Your task to perform on an android device: set default search engine in the chrome app Image 0: 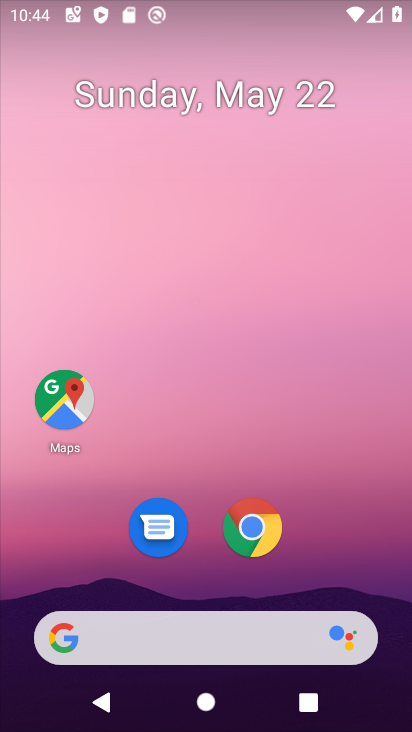
Step 0: click (274, 530)
Your task to perform on an android device: set default search engine in the chrome app Image 1: 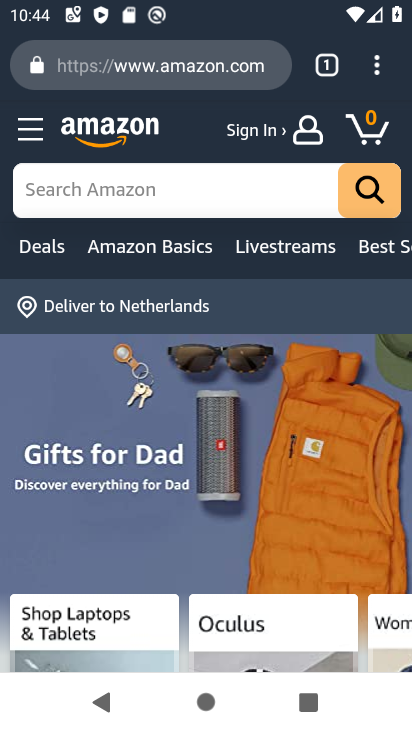
Step 1: click (392, 53)
Your task to perform on an android device: set default search engine in the chrome app Image 2: 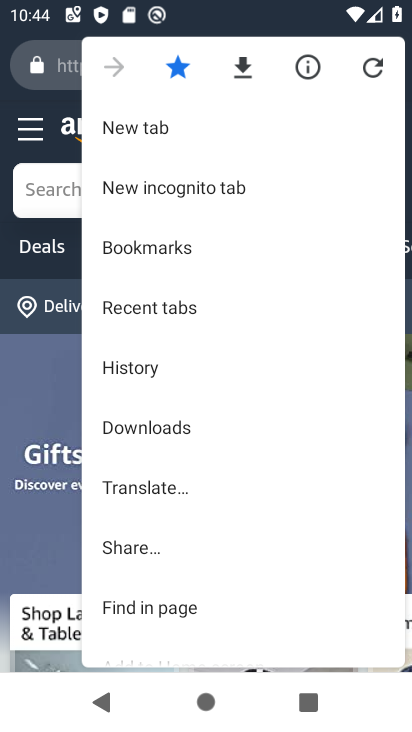
Step 2: drag from (172, 576) to (213, 437)
Your task to perform on an android device: set default search engine in the chrome app Image 3: 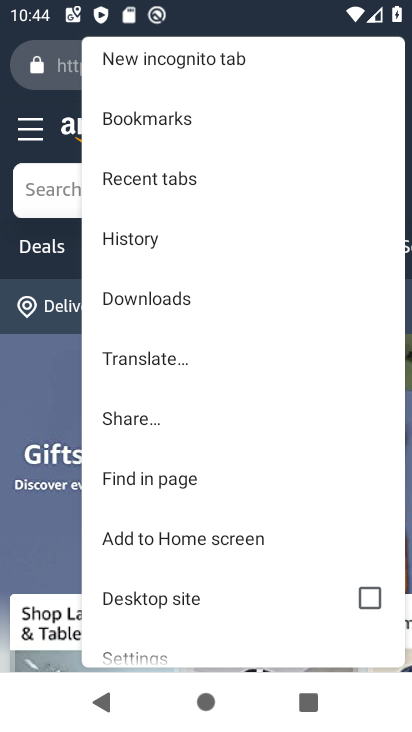
Step 3: click (148, 652)
Your task to perform on an android device: set default search engine in the chrome app Image 4: 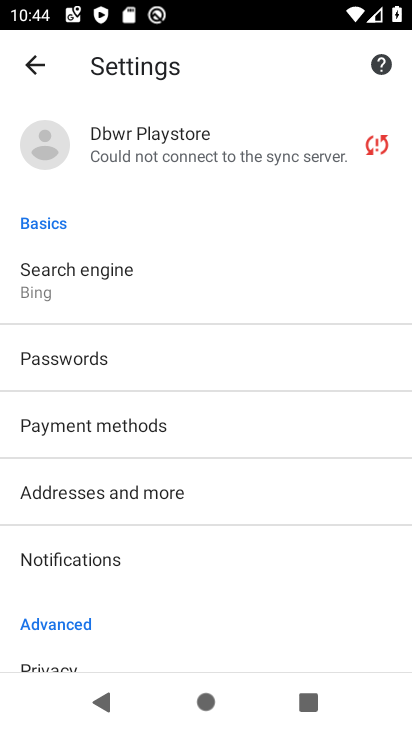
Step 4: drag from (184, 601) to (242, 373)
Your task to perform on an android device: set default search engine in the chrome app Image 5: 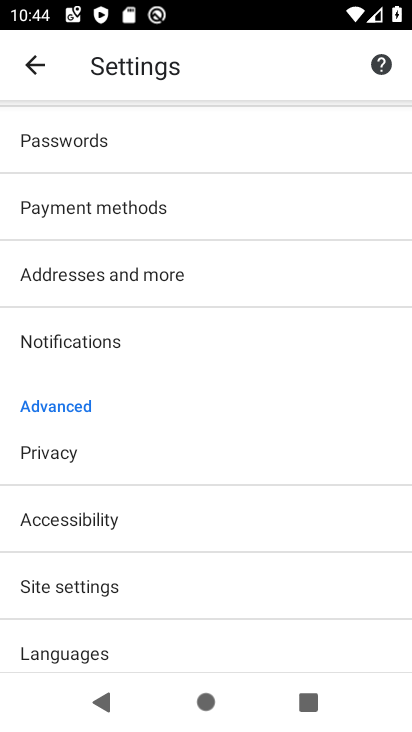
Step 5: drag from (163, 144) to (119, 586)
Your task to perform on an android device: set default search engine in the chrome app Image 6: 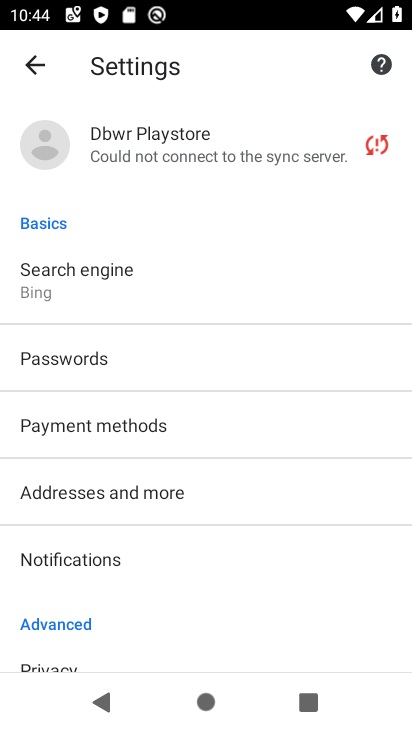
Step 6: click (120, 310)
Your task to perform on an android device: set default search engine in the chrome app Image 7: 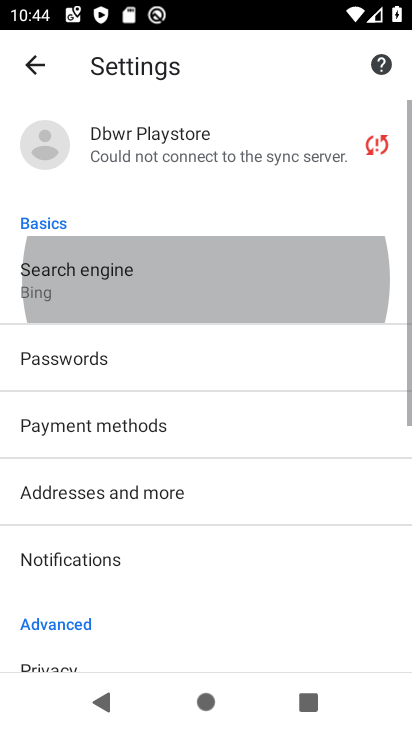
Step 7: click (141, 359)
Your task to perform on an android device: set default search engine in the chrome app Image 8: 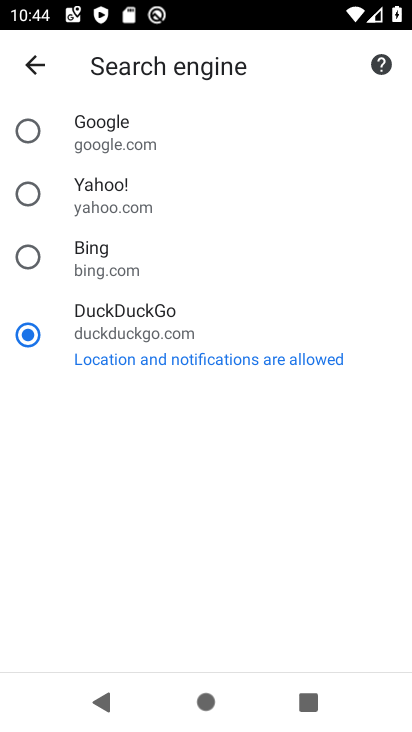
Step 8: task complete